Your task to perform on an android device: turn off wifi Image 0: 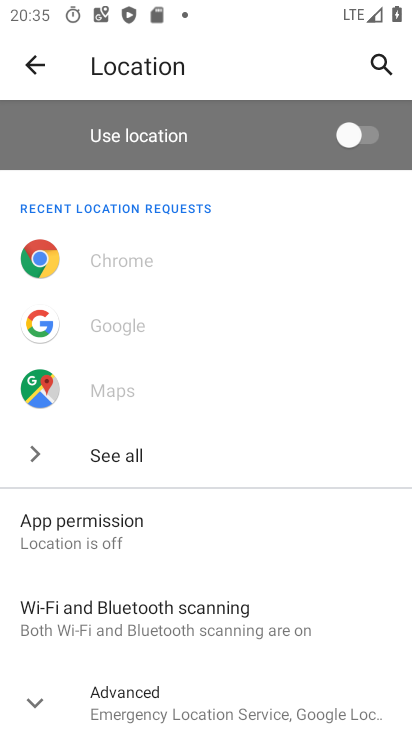
Step 0: drag from (238, 14) to (182, 483)
Your task to perform on an android device: turn off wifi Image 1: 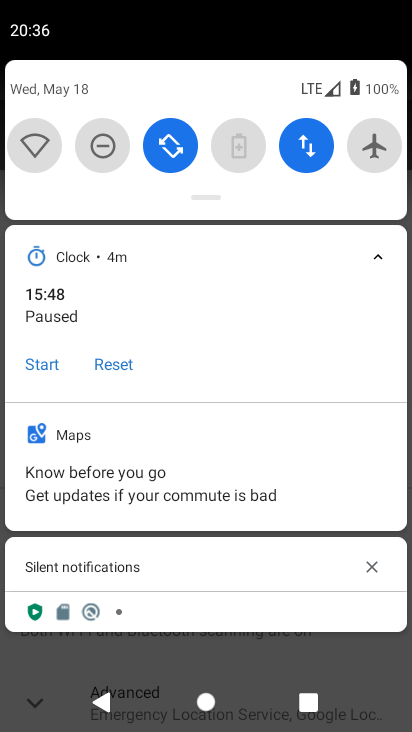
Step 1: task complete